Your task to perform on an android device: toggle data saver in the chrome app Image 0: 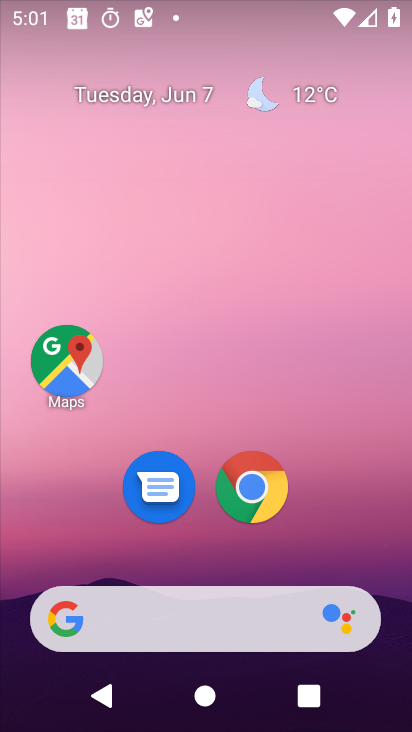
Step 0: click (248, 489)
Your task to perform on an android device: toggle data saver in the chrome app Image 1: 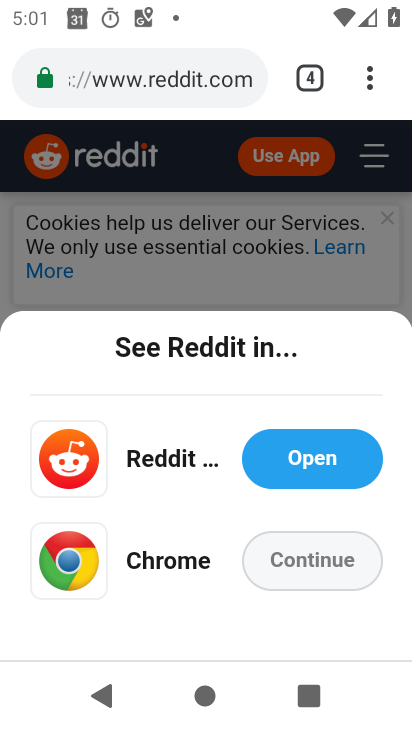
Step 1: drag from (371, 70) to (128, 549)
Your task to perform on an android device: toggle data saver in the chrome app Image 2: 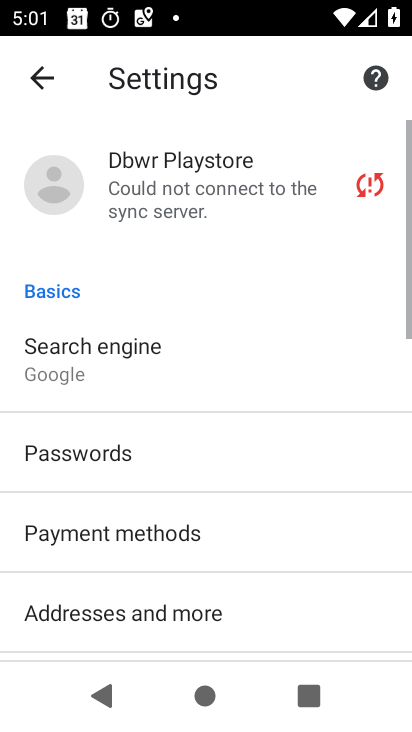
Step 2: drag from (108, 599) to (190, 168)
Your task to perform on an android device: toggle data saver in the chrome app Image 3: 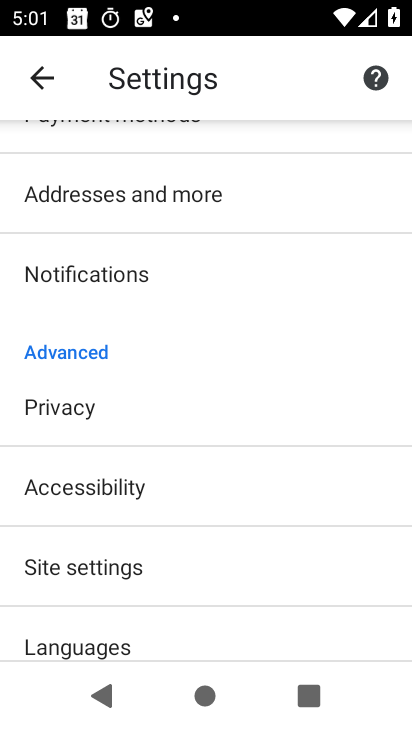
Step 3: drag from (129, 603) to (190, 373)
Your task to perform on an android device: toggle data saver in the chrome app Image 4: 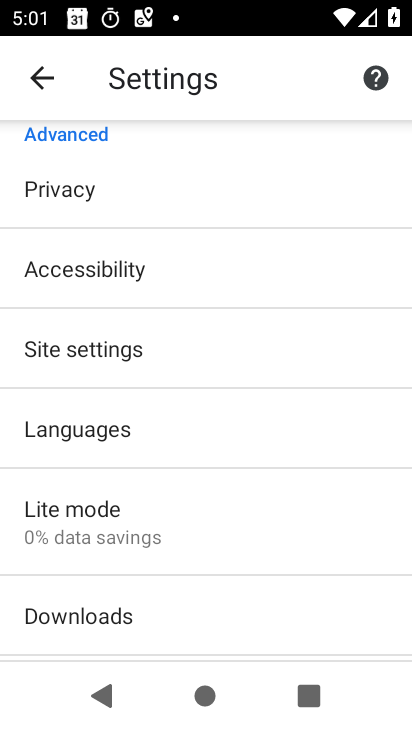
Step 4: click (111, 526)
Your task to perform on an android device: toggle data saver in the chrome app Image 5: 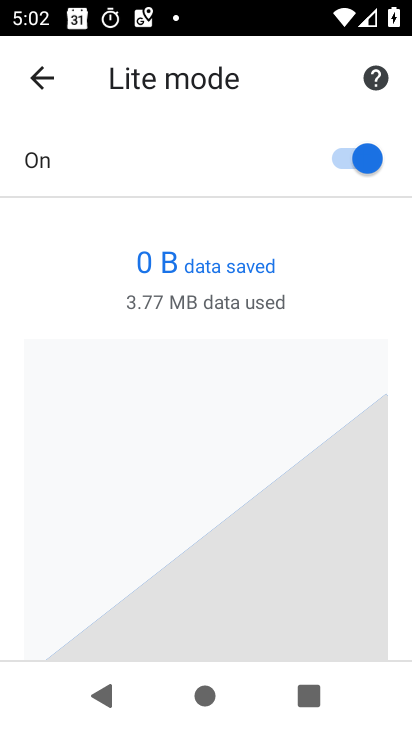
Step 5: click (349, 163)
Your task to perform on an android device: toggle data saver in the chrome app Image 6: 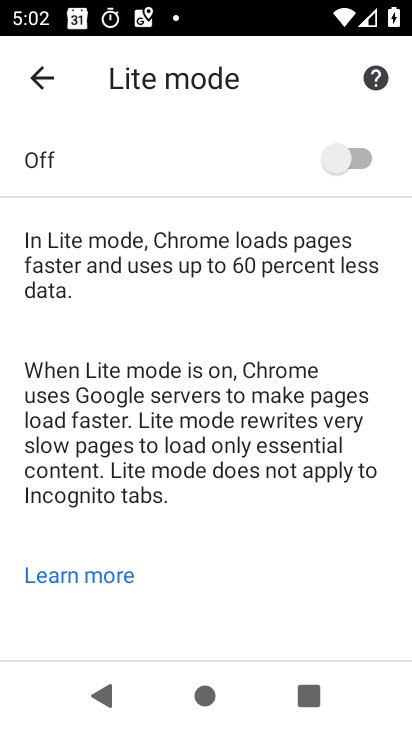
Step 6: task complete